Your task to perform on an android device: Open CNN.com Image 0: 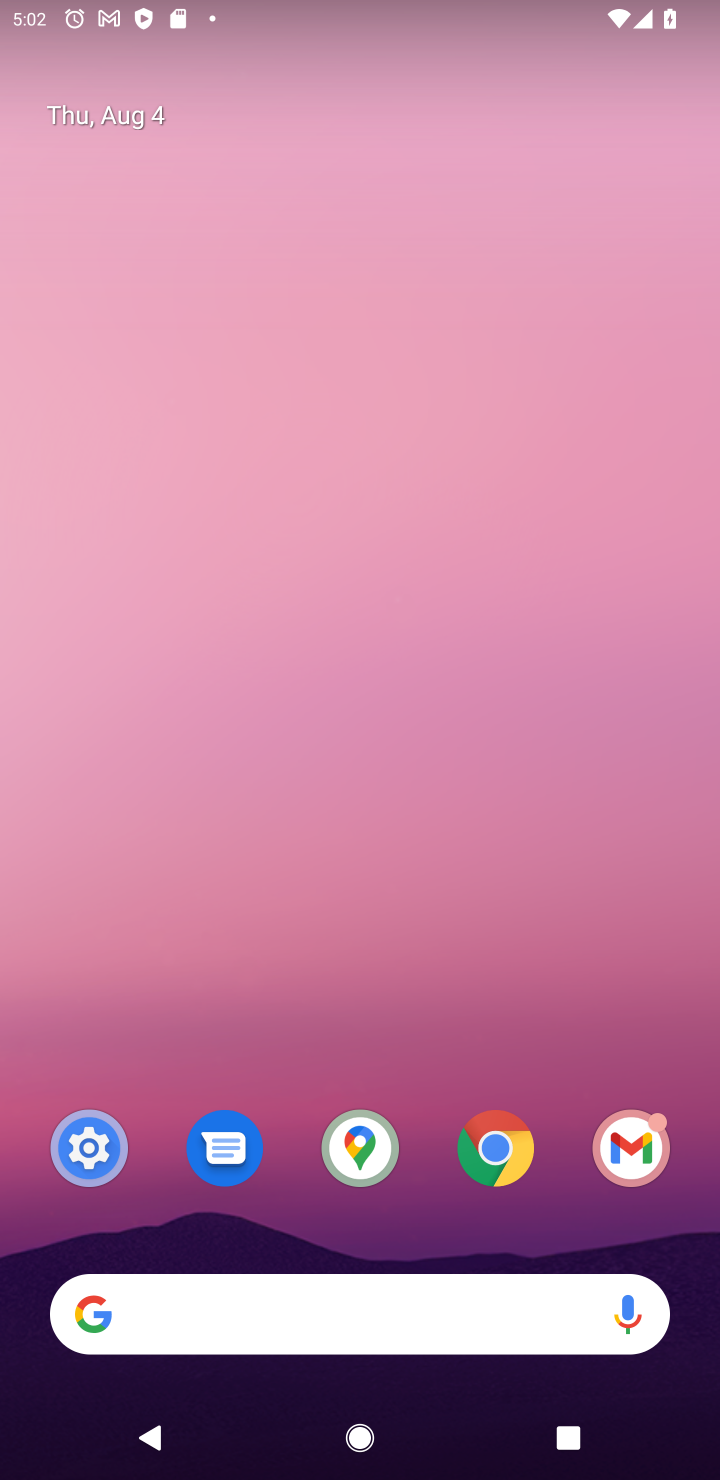
Step 0: click (501, 1146)
Your task to perform on an android device: Open CNN.com Image 1: 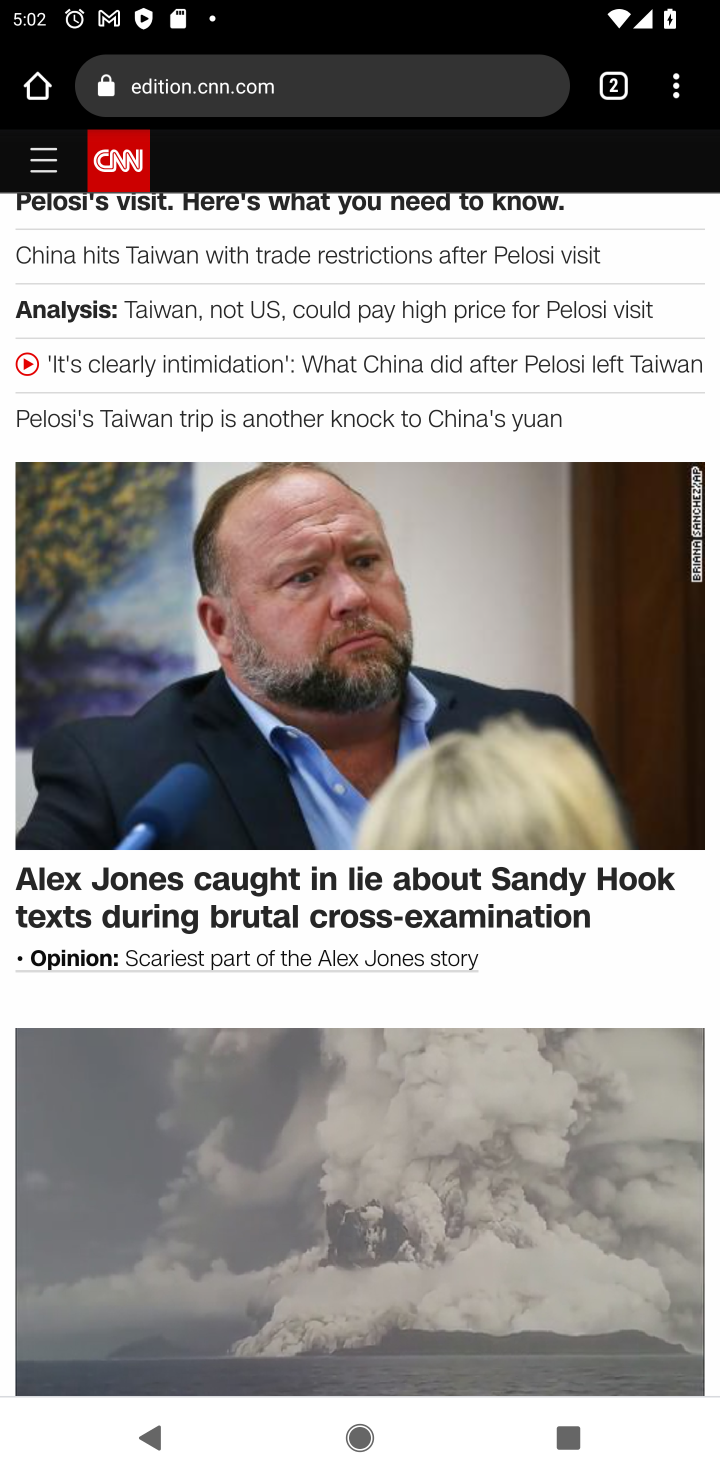
Step 1: task complete